Your task to perform on an android device: Go to Reddit.com Image 0: 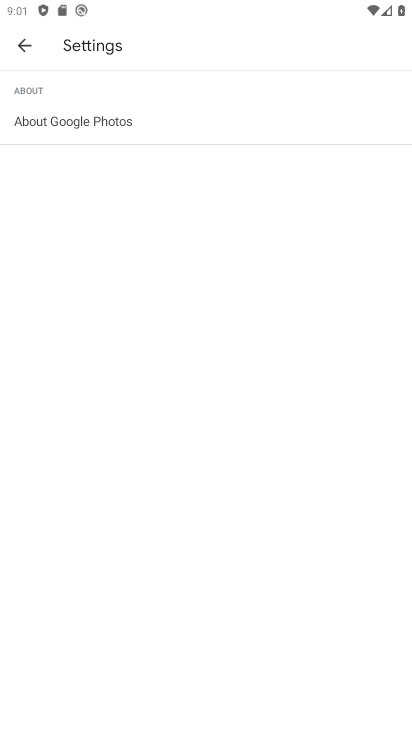
Step 0: press home button
Your task to perform on an android device: Go to Reddit.com Image 1: 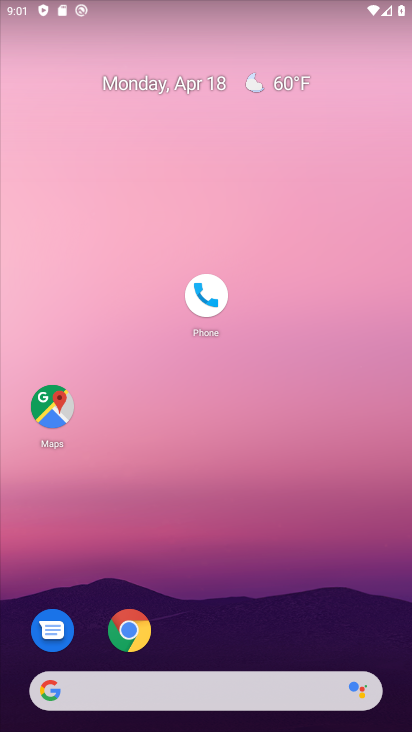
Step 1: click (127, 634)
Your task to perform on an android device: Go to Reddit.com Image 2: 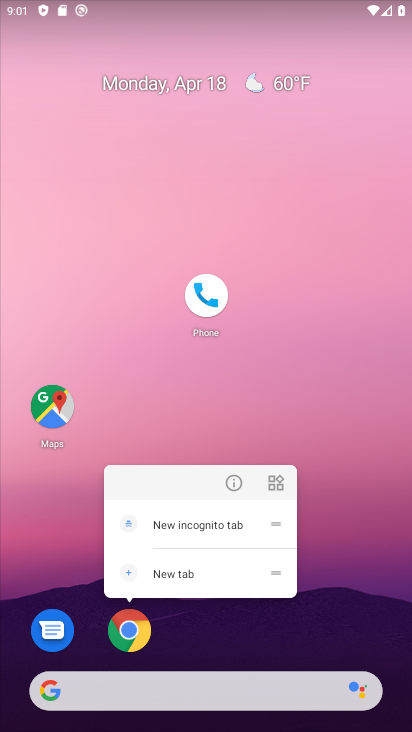
Step 2: drag from (347, 585) to (354, 83)
Your task to perform on an android device: Go to Reddit.com Image 3: 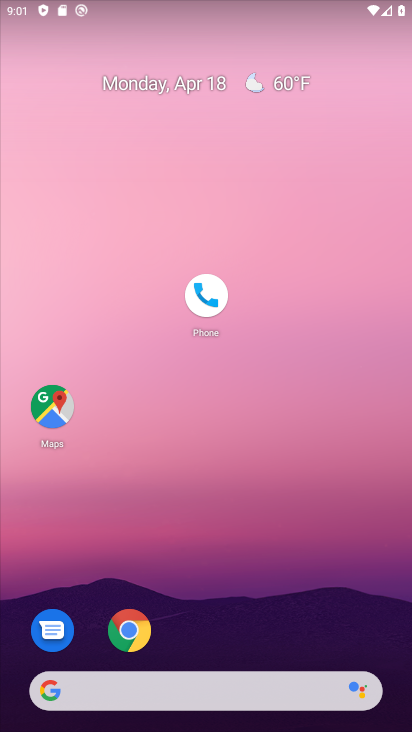
Step 3: drag from (227, 588) to (173, 158)
Your task to perform on an android device: Go to Reddit.com Image 4: 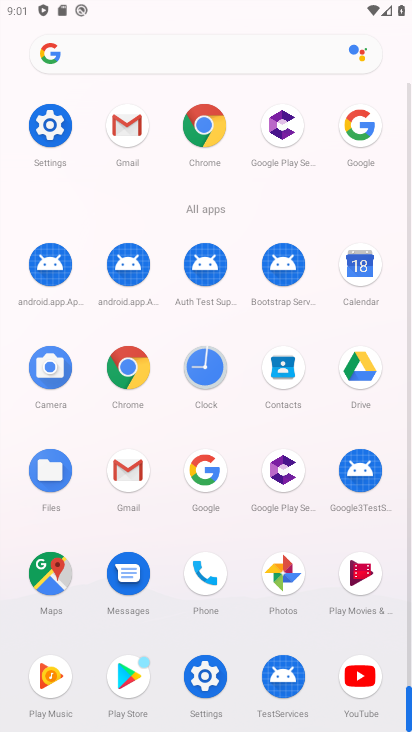
Step 4: click (126, 377)
Your task to perform on an android device: Go to Reddit.com Image 5: 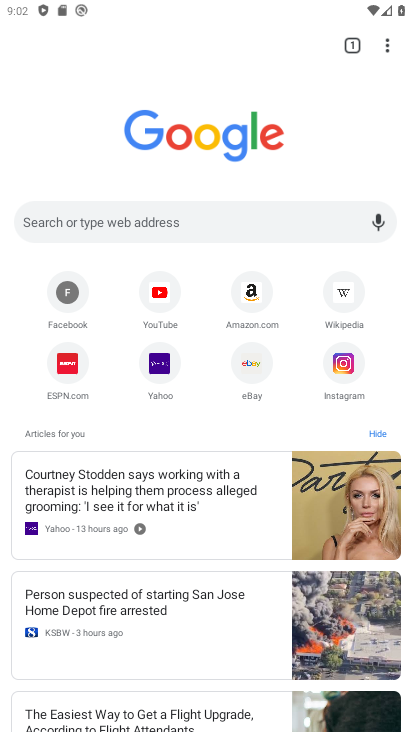
Step 5: click (274, 213)
Your task to perform on an android device: Go to Reddit.com Image 6: 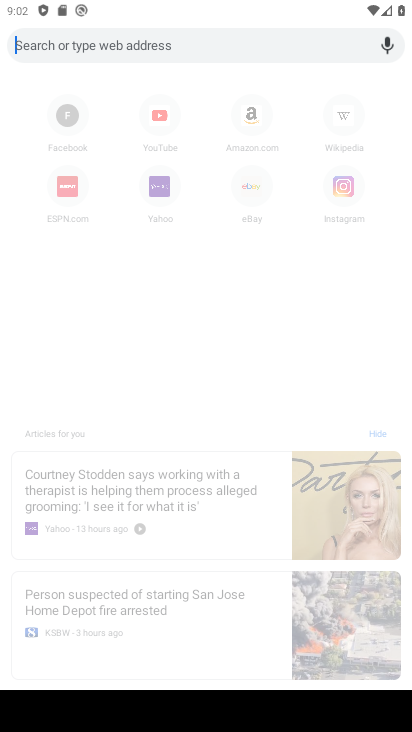
Step 6: type "reddit.com"
Your task to perform on an android device: Go to Reddit.com Image 7: 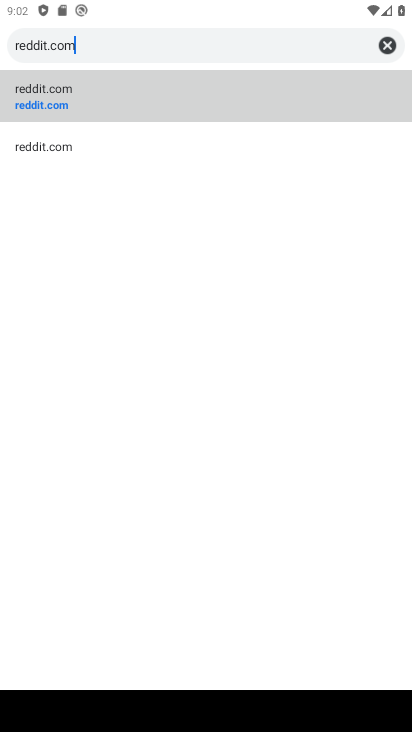
Step 7: click (44, 99)
Your task to perform on an android device: Go to Reddit.com Image 8: 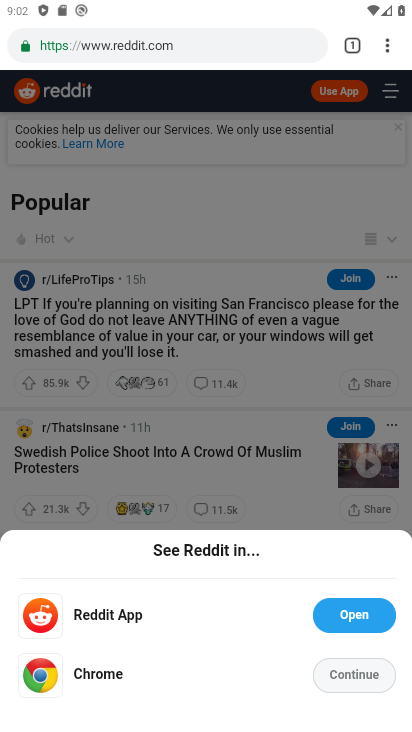
Step 8: task complete